Your task to perform on an android device: Search for Mexican restaurants on Maps Image 0: 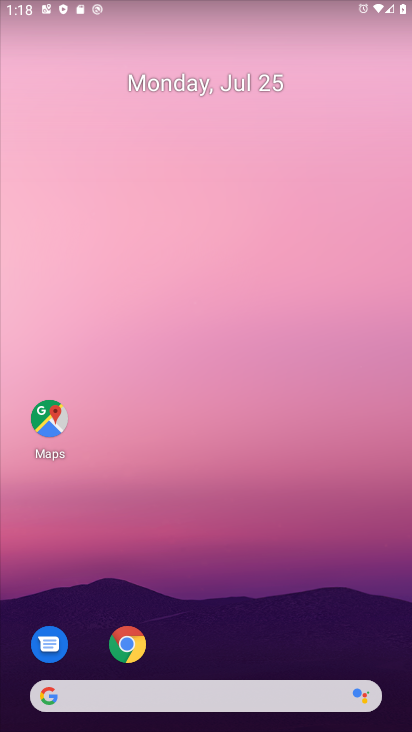
Step 0: drag from (334, 637) to (158, 67)
Your task to perform on an android device: Search for Mexican restaurants on Maps Image 1: 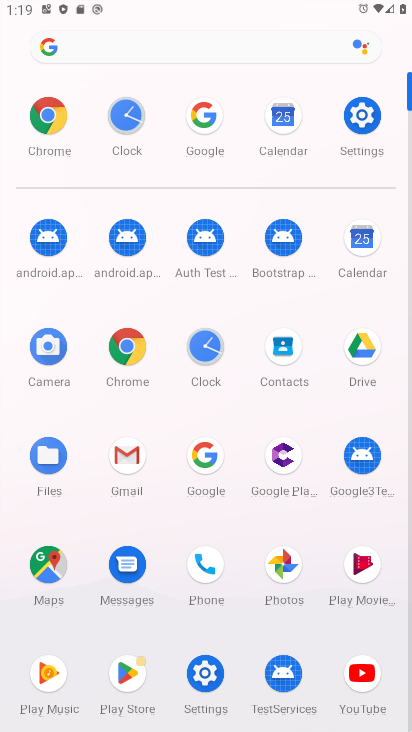
Step 1: click (61, 556)
Your task to perform on an android device: Search for Mexican restaurants on Maps Image 2: 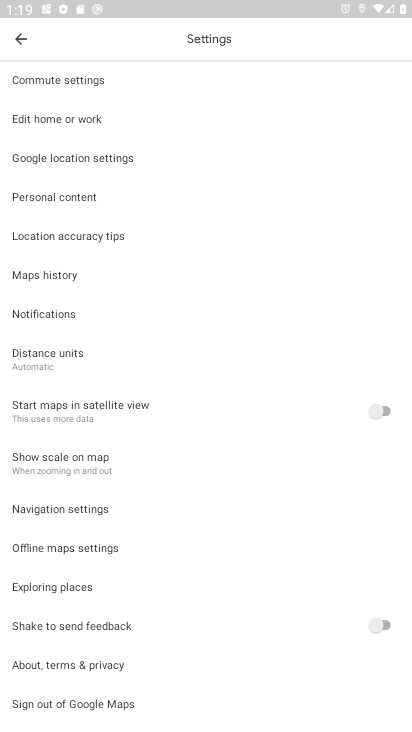
Step 2: press back button
Your task to perform on an android device: Search for Mexican restaurants on Maps Image 3: 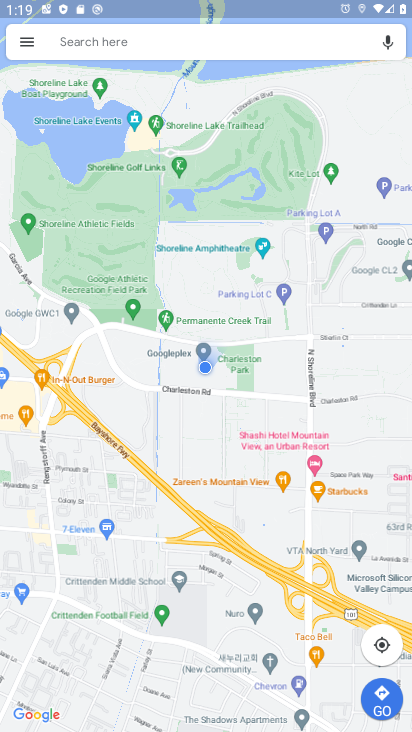
Step 3: click (115, 40)
Your task to perform on an android device: Search for Mexican restaurants on Maps Image 4: 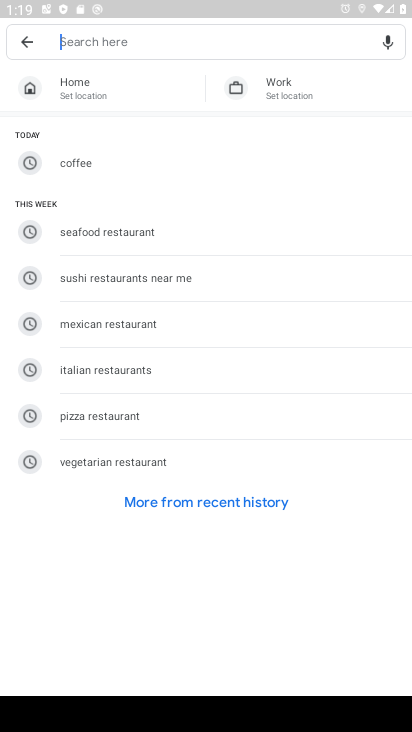
Step 4: click (137, 330)
Your task to perform on an android device: Search for Mexican restaurants on Maps Image 5: 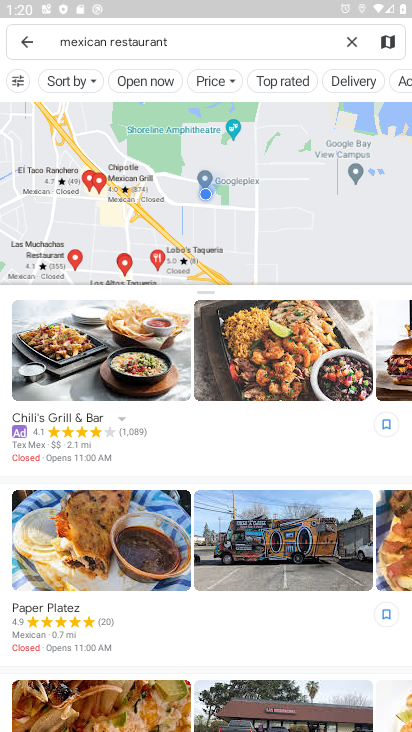
Step 5: task complete